Your task to perform on an android device: show emergency info Image 0: 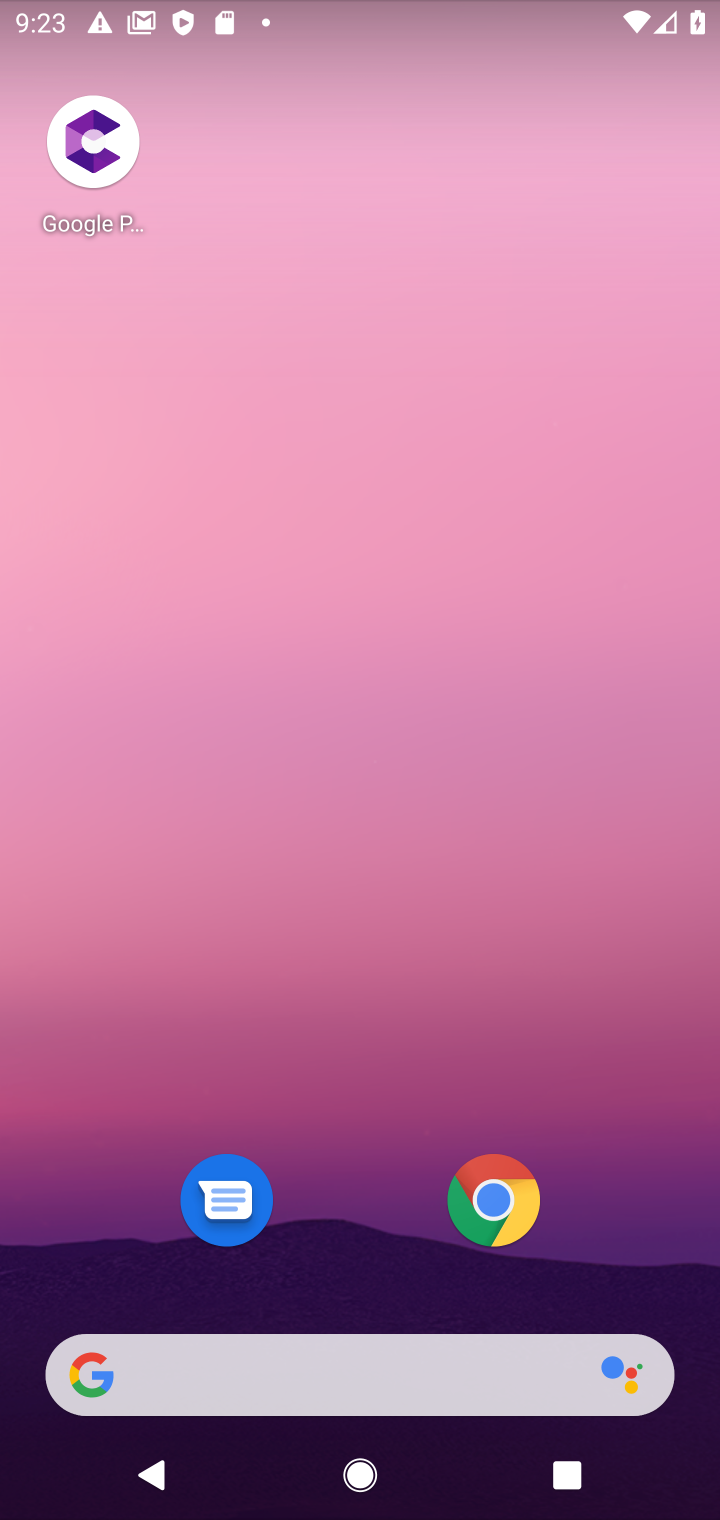
Step 0: drag from (356, 1057) to (368, 378)
Your task to perform on an android device: show emergency info Image 1: 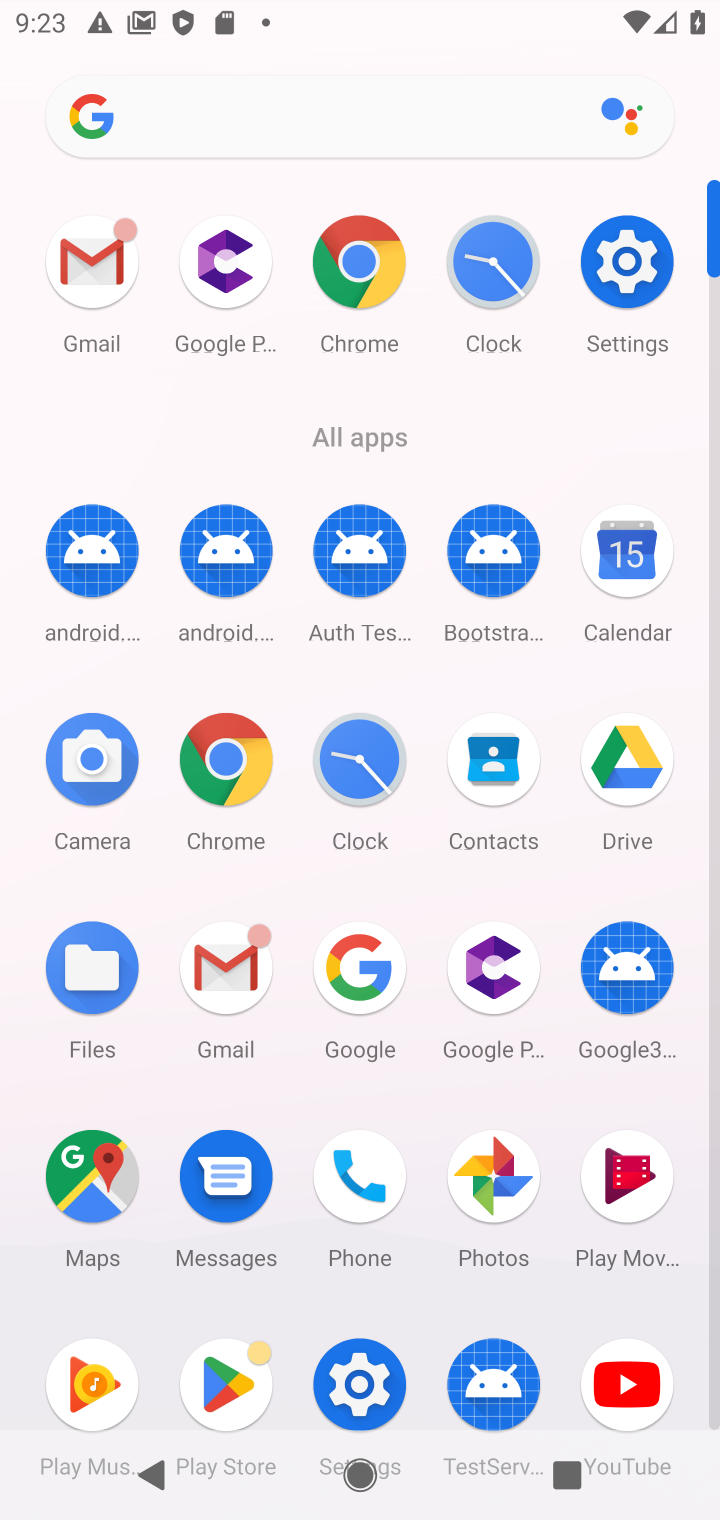
Step 1: click (598, 295)
Your task to perform on an android device: show emergency info Image 2: 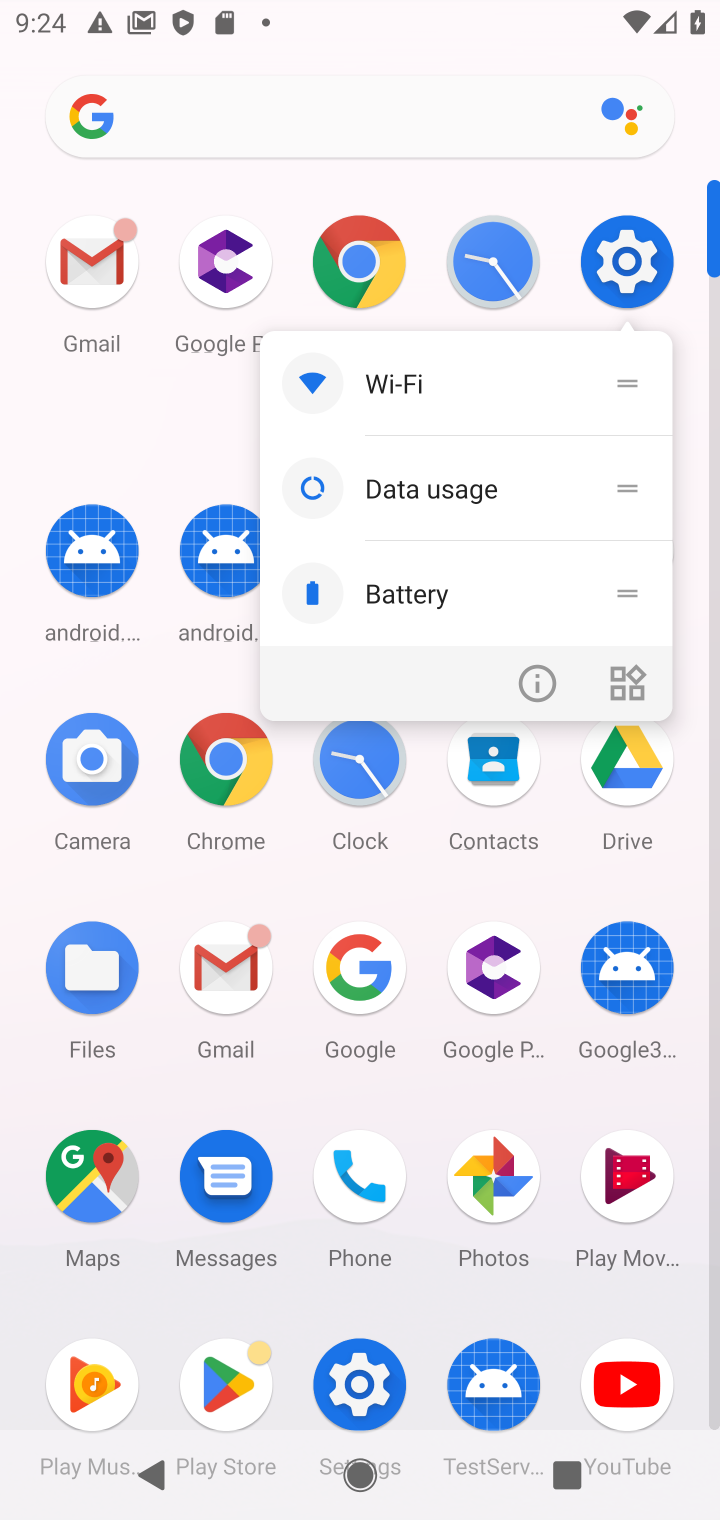
Step 2: click (653, 273)
Your task to perform on an android device: show emergency info Image 3: 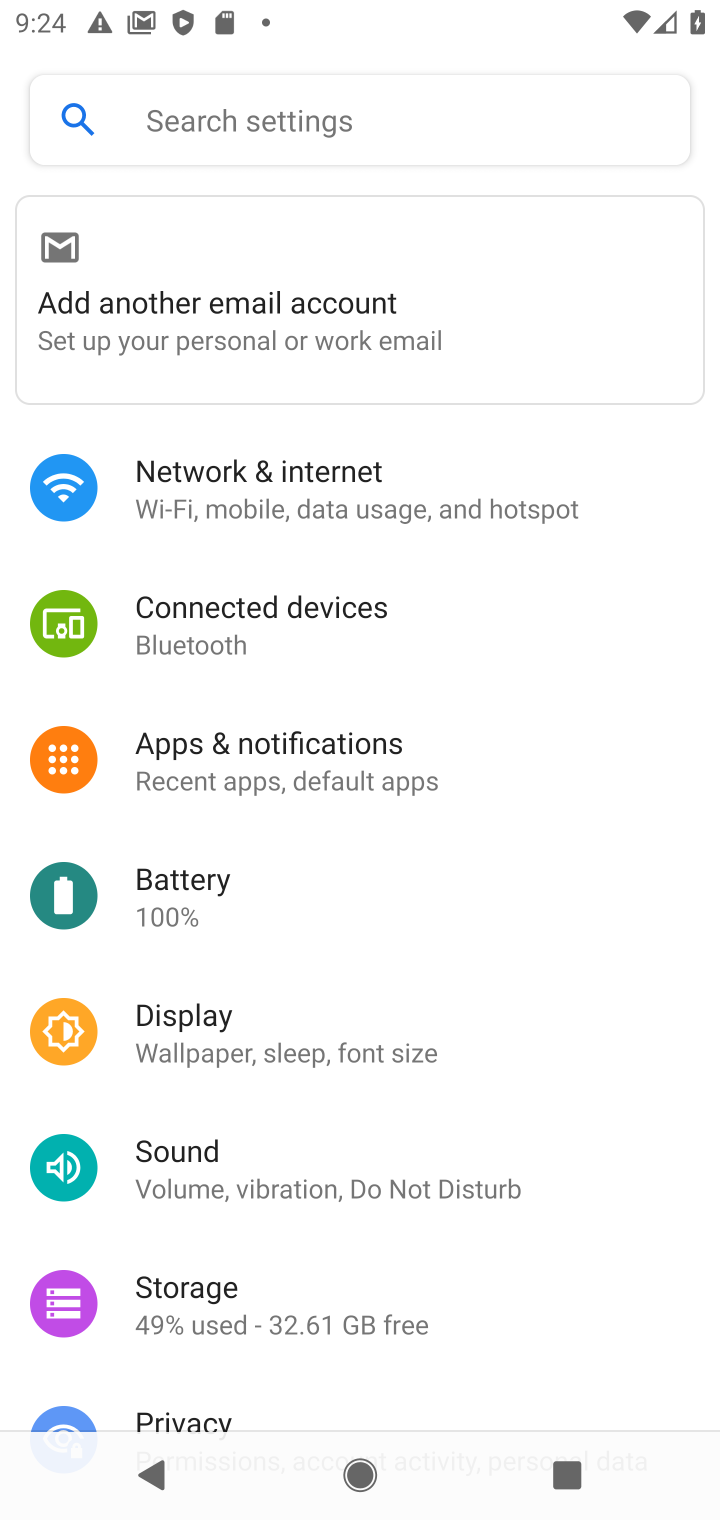
Step 3: drag from (363, 1276) to (408, 294)
Your task to perform on an android device: show emergency info Image 4: 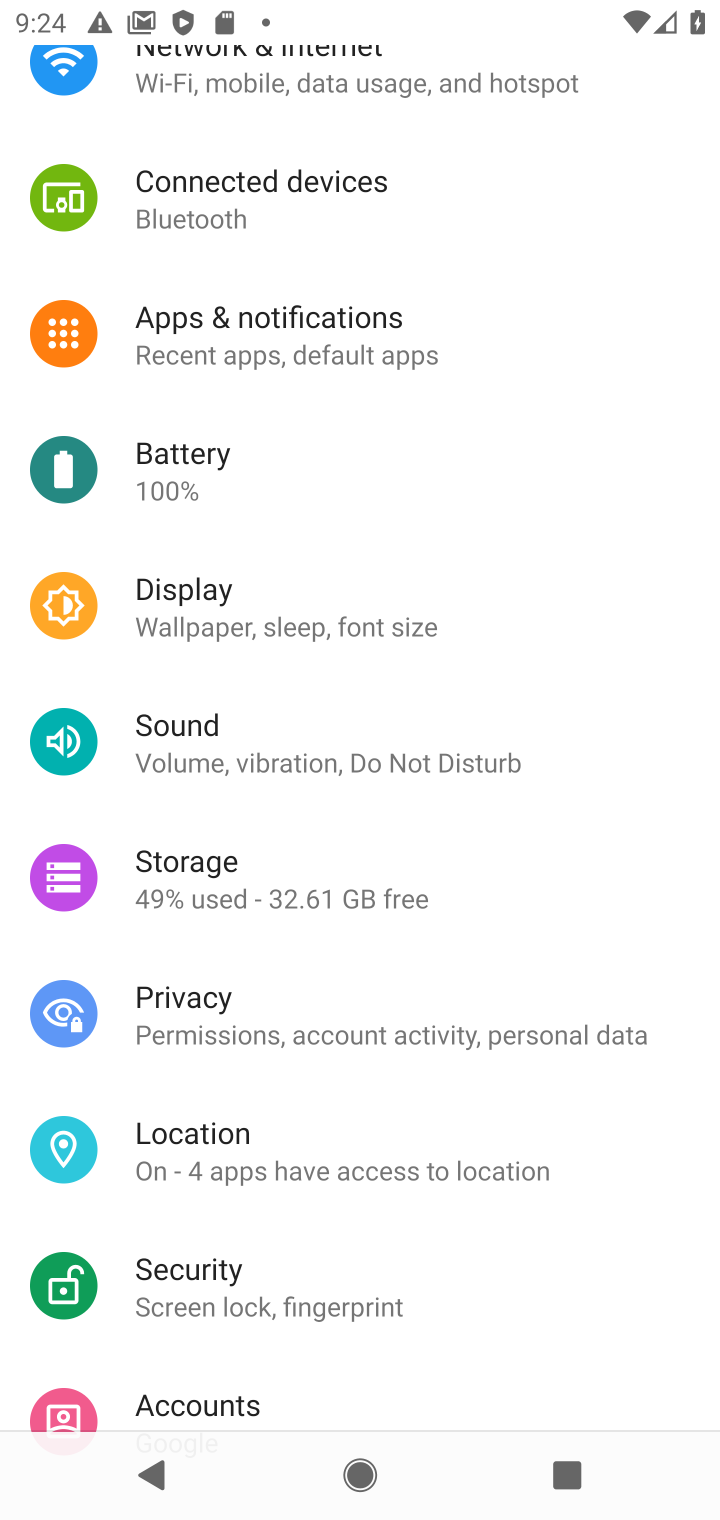
Step 4: drag from (387, 1337) to (337, 489)
Your task to perform on an android device: show emergency info Image 5: 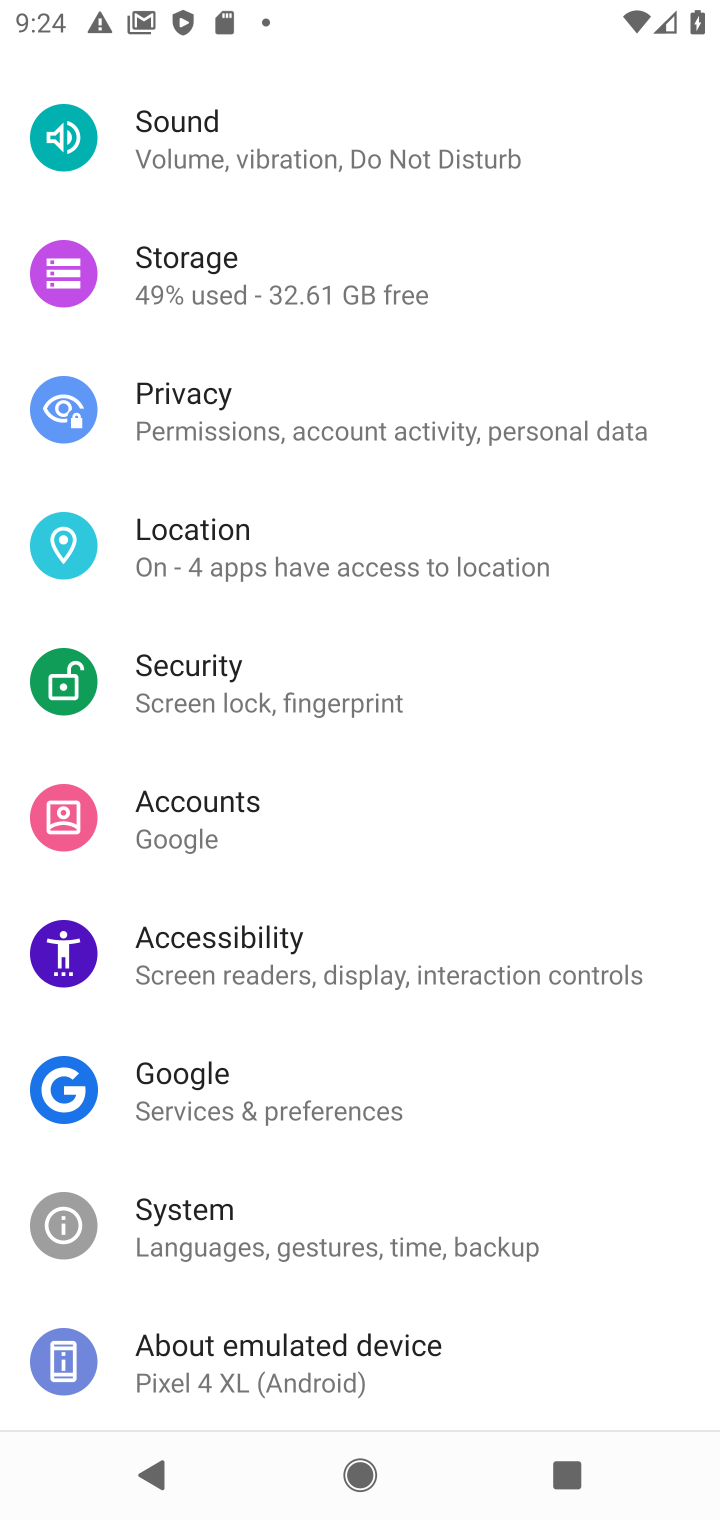
Step 5: drag from (367, 887) to (361, 431)
Your task to perform on an android device: show emergency info Image 6: 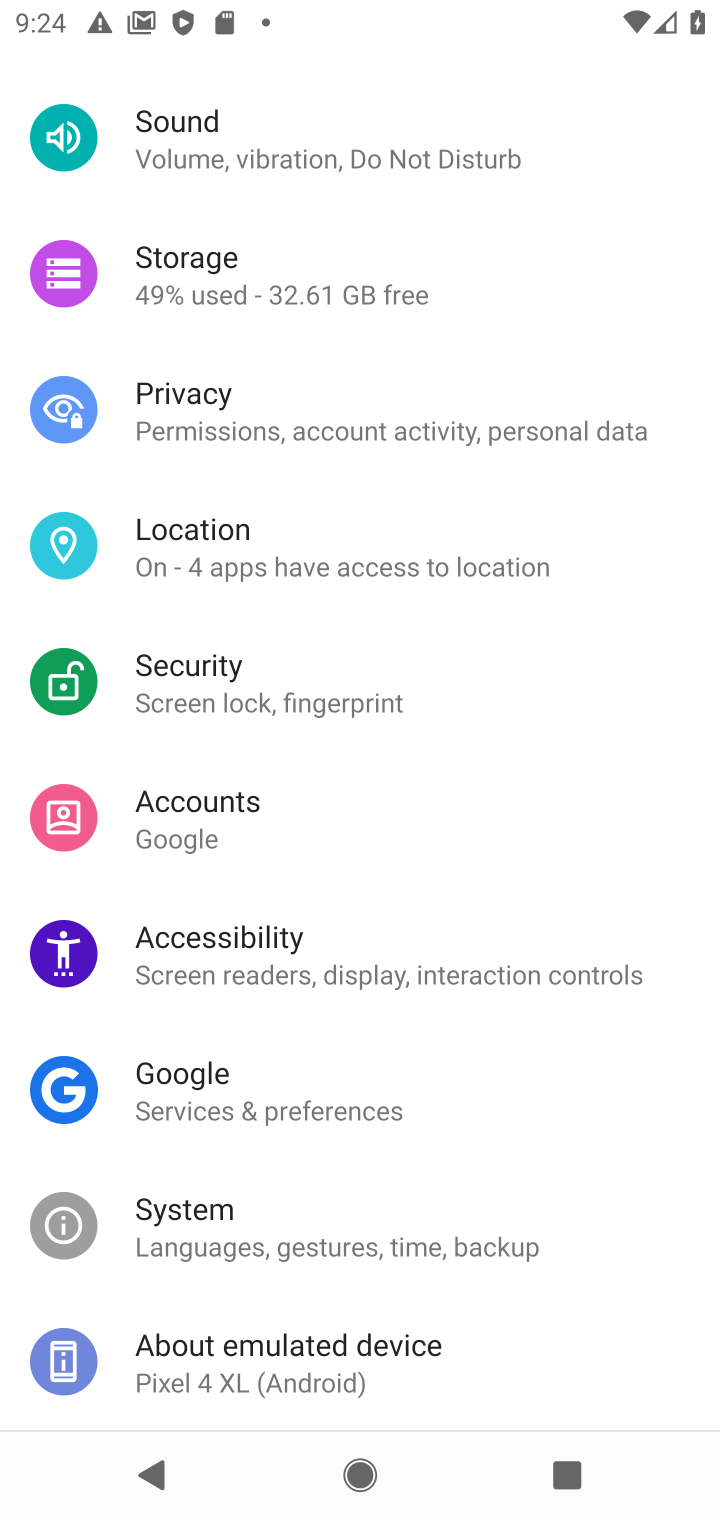
Step 6: drag from (313, 1274) to (354, 628)
Your task to perform on an android device: show emergency info Image 7: 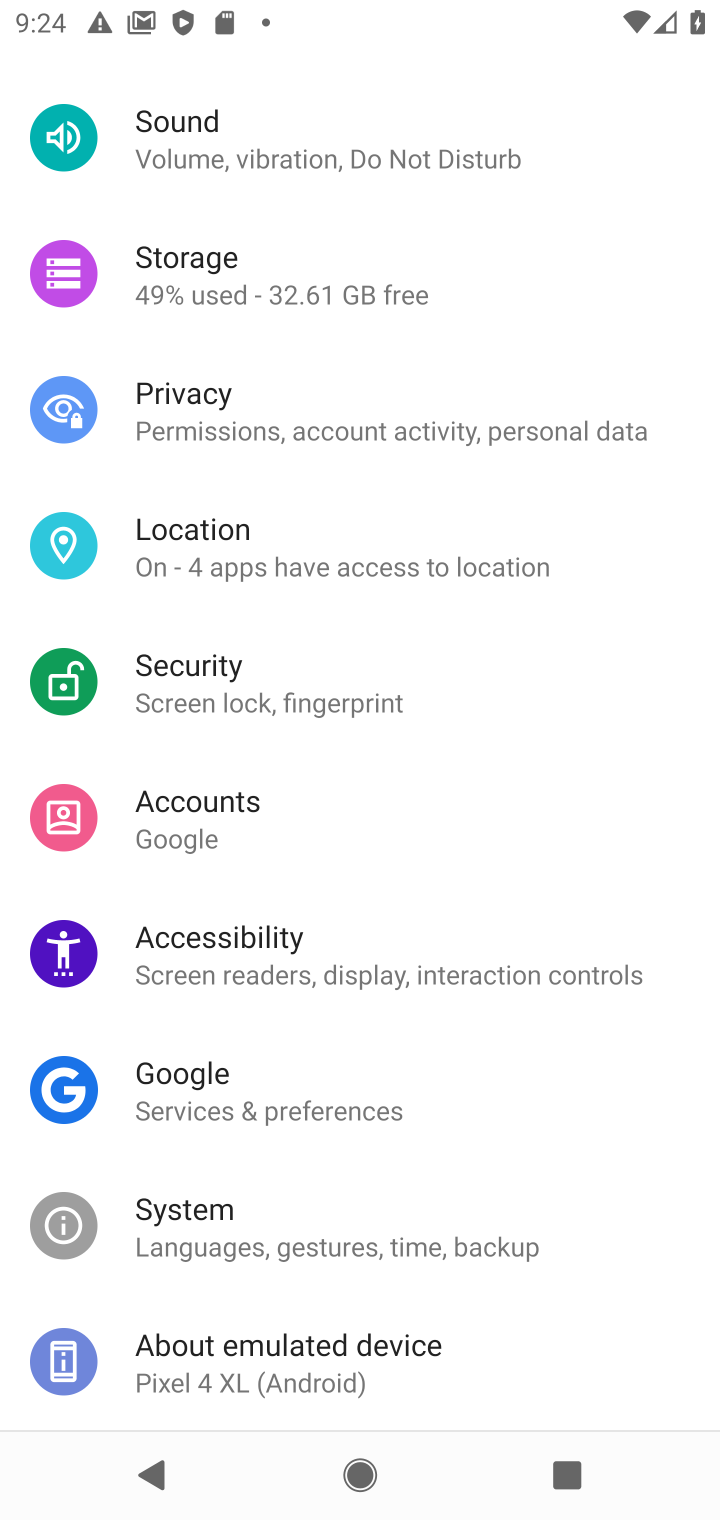
Step 7: click (315, 1335)
Your task to perform on an android device: show emergency info Image 8: 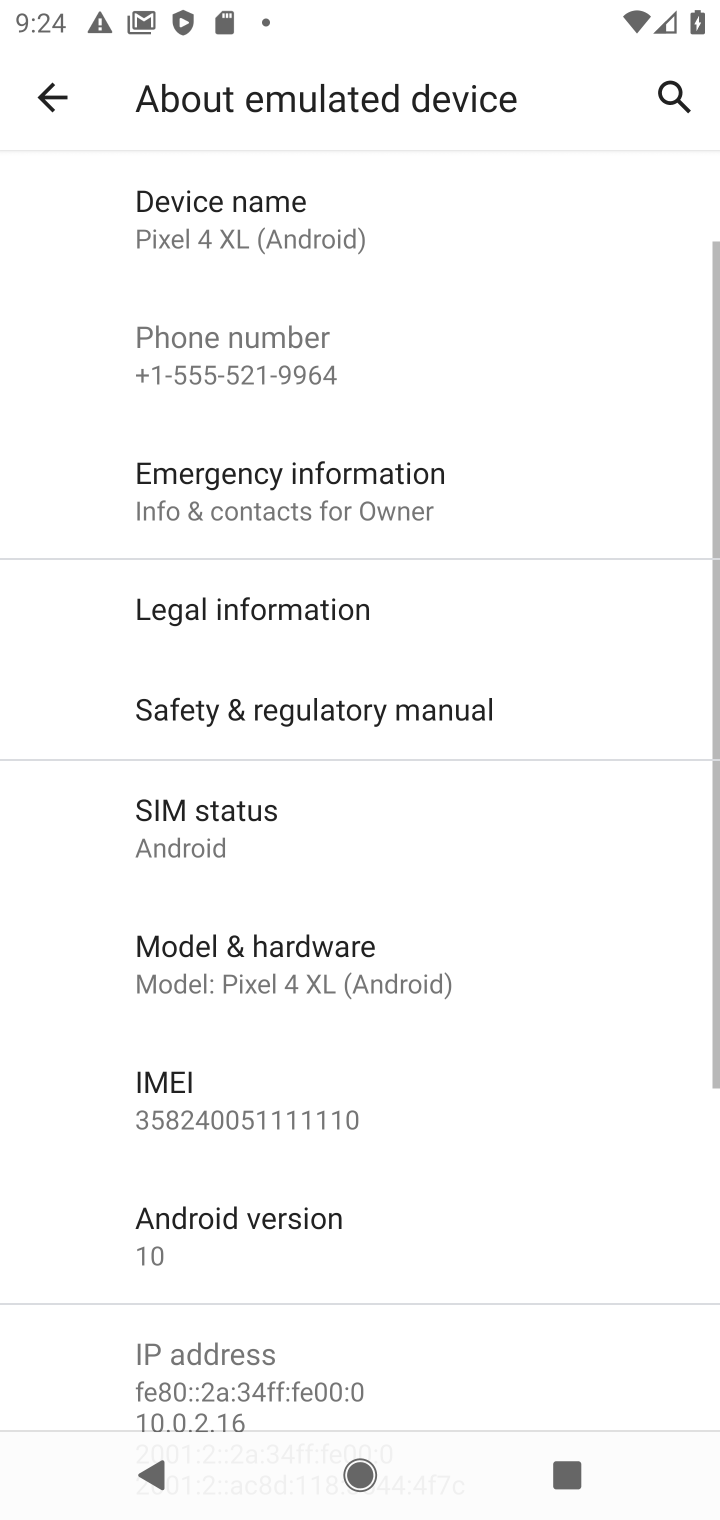
Step 8: click (313, 505)
Your task to perform on an android device: show emergency info Image 9: 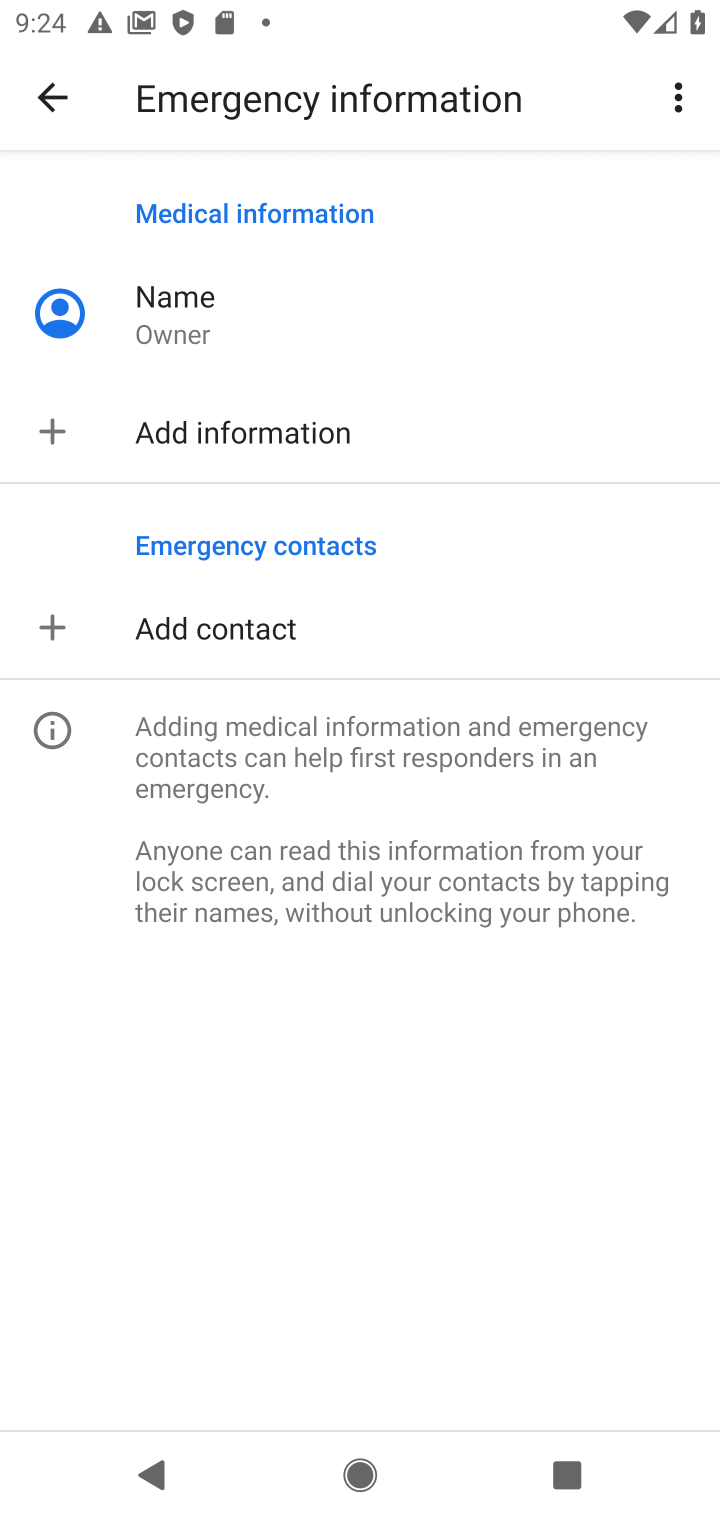
Step 9: task complete